Your task to perform on an android device: Open Amazon Image 0: 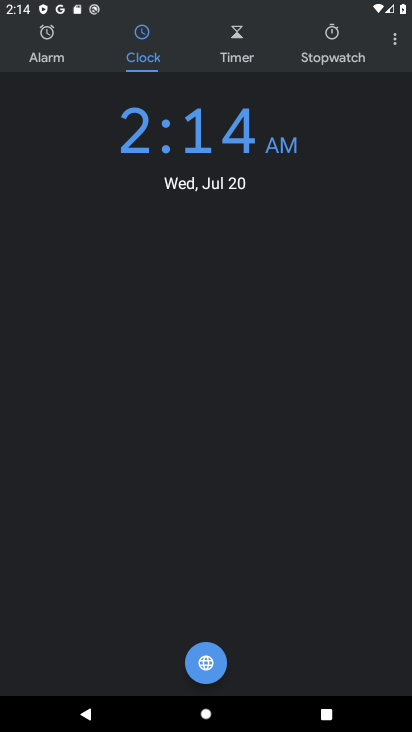
Step 0: press home button
Your task to perform on an android device: Open Amazon Image 1: 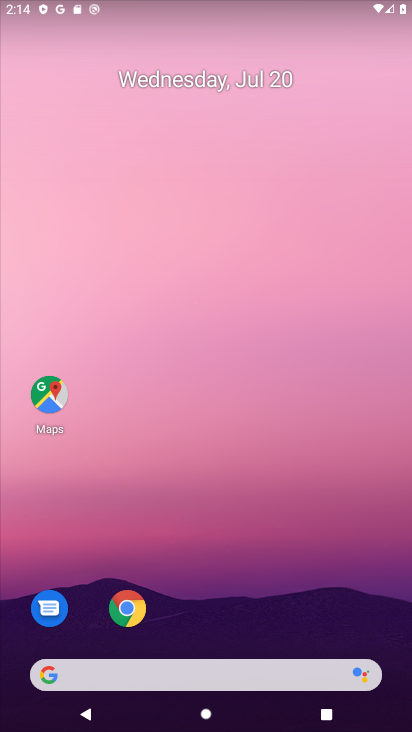
Step 1: click (125, 613)
Your task to perform on an android device: Open Amazon Image 2: 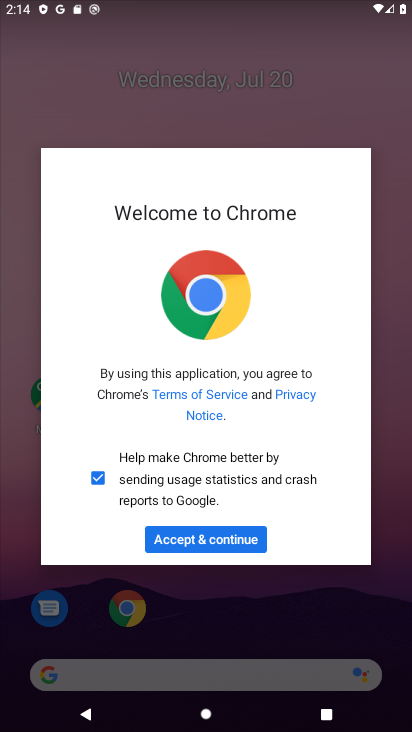
Step 2: click (182, 554)
Your task to perform on an android device: Open Amazon Image 3: 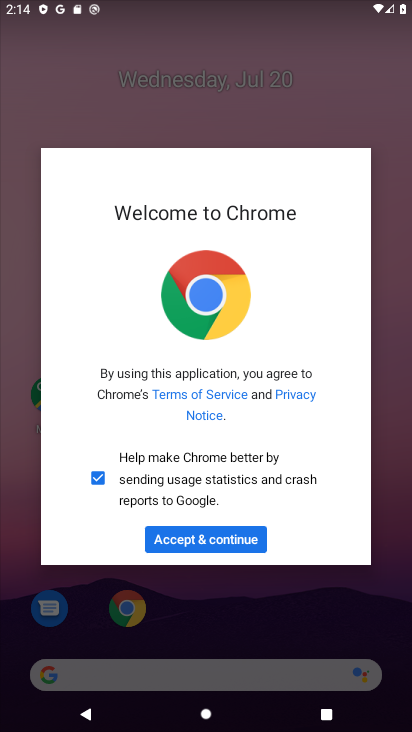
Step 3: click (172, 533)
Your task to perform on an android device: Open Amazon Image 4: 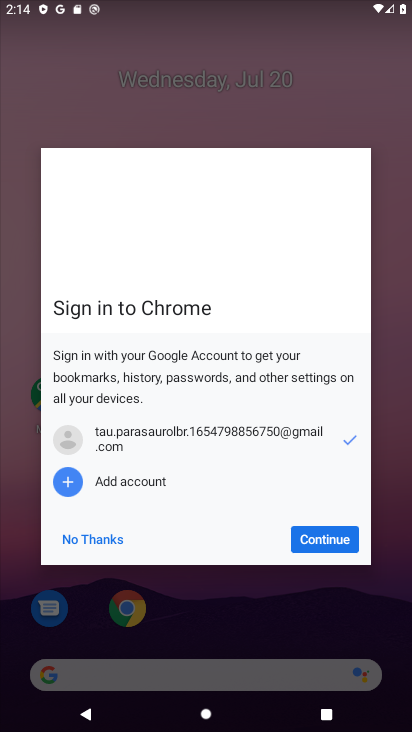
Step 4: click (302, 527)
Your task to perform on an android device: Open Amazon Image 5: 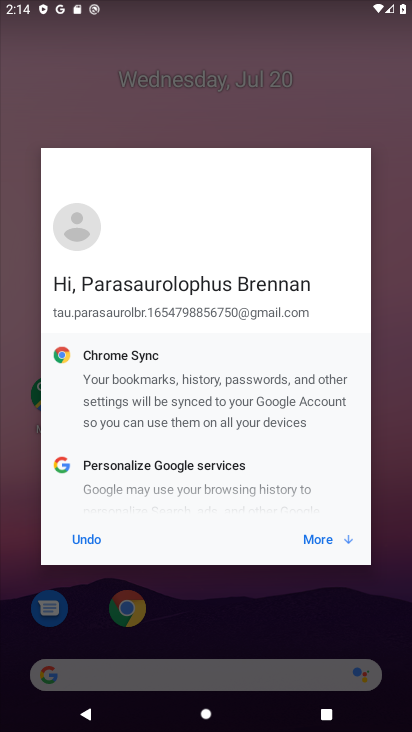
Step 5: click (316, 533)
Your task to perform on an android device: Open Amazon Image 6: 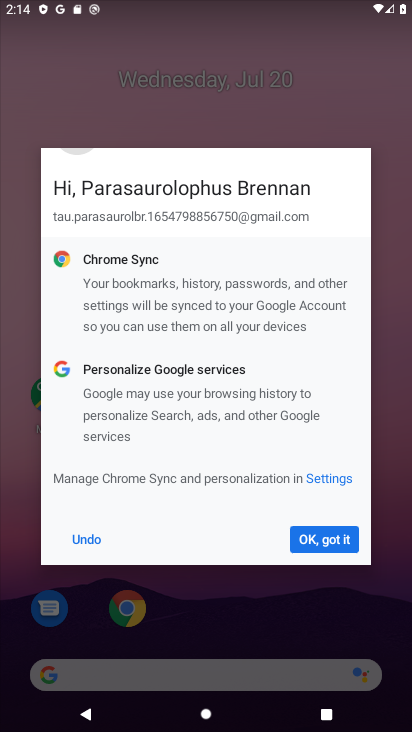
Step 6: click (316, 533)
Your task to perform on an android device: Open Amazon Image 7: 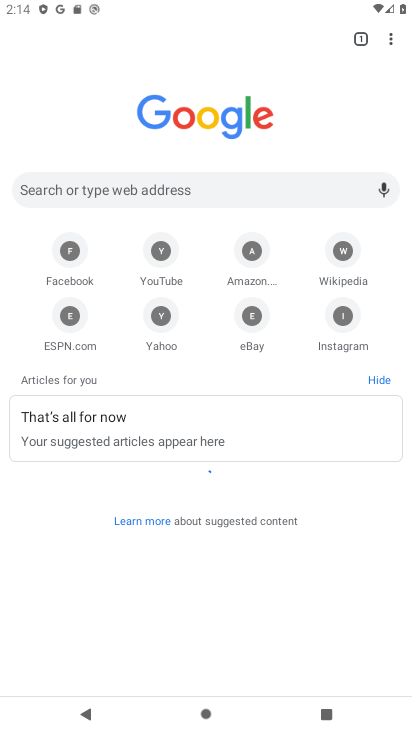
Step 7: click (249, 261)
Your task to perform on an android device: Open Amazon Image 8: 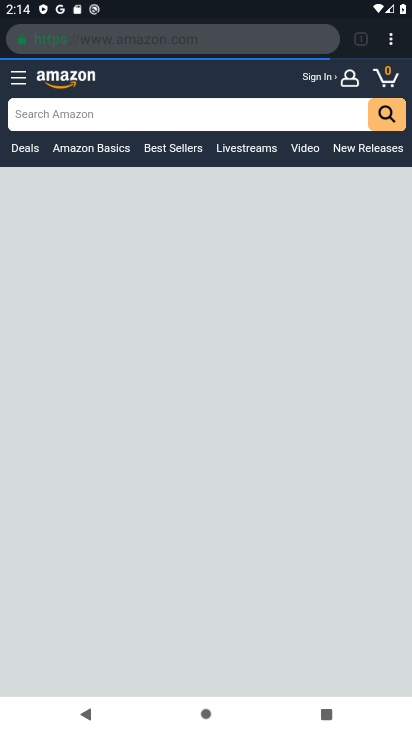
Step 8: task complete